Your task to perform on an android device: Show me productivity apps on the Play Store Image 0: 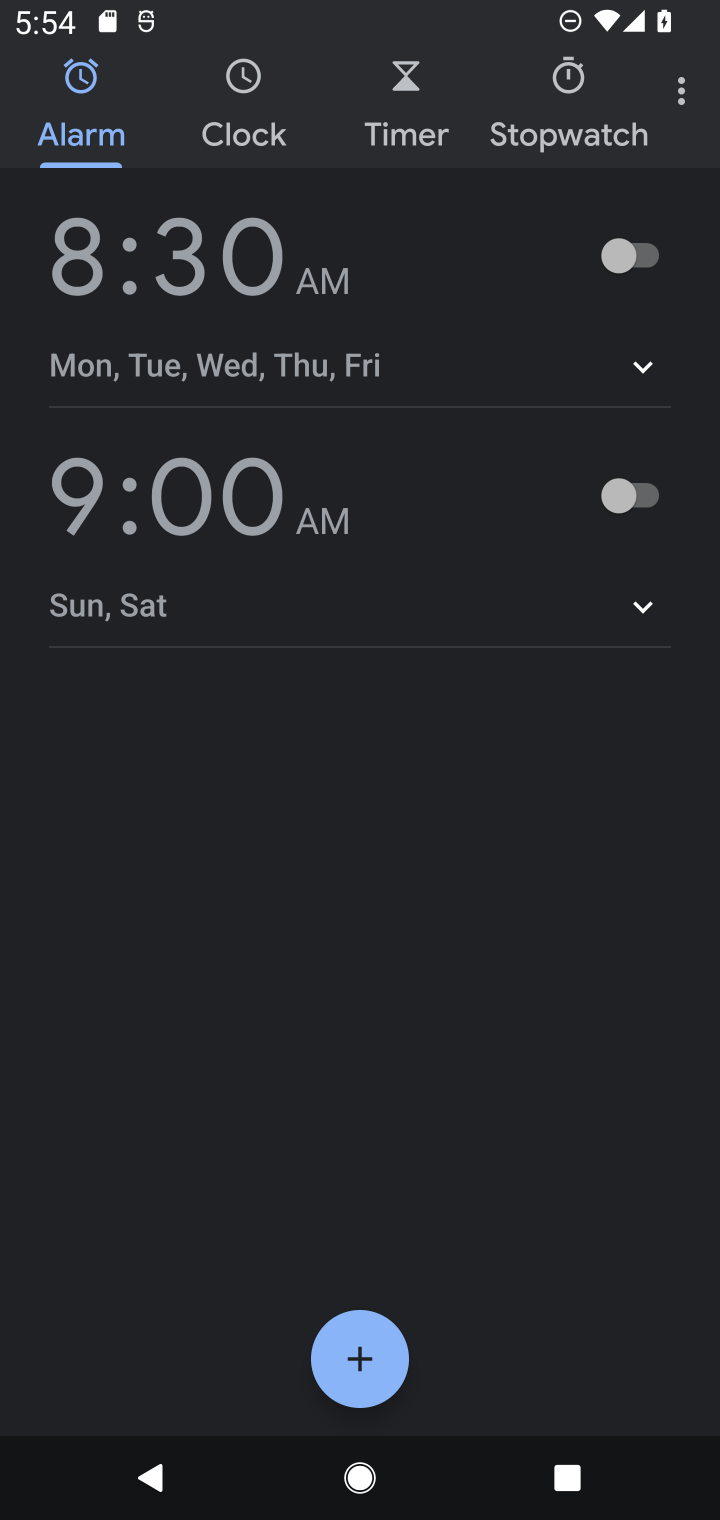
Step 0: press home button
Your task to perform on an android device: Show me productivity apps on the Play Store Image 1: 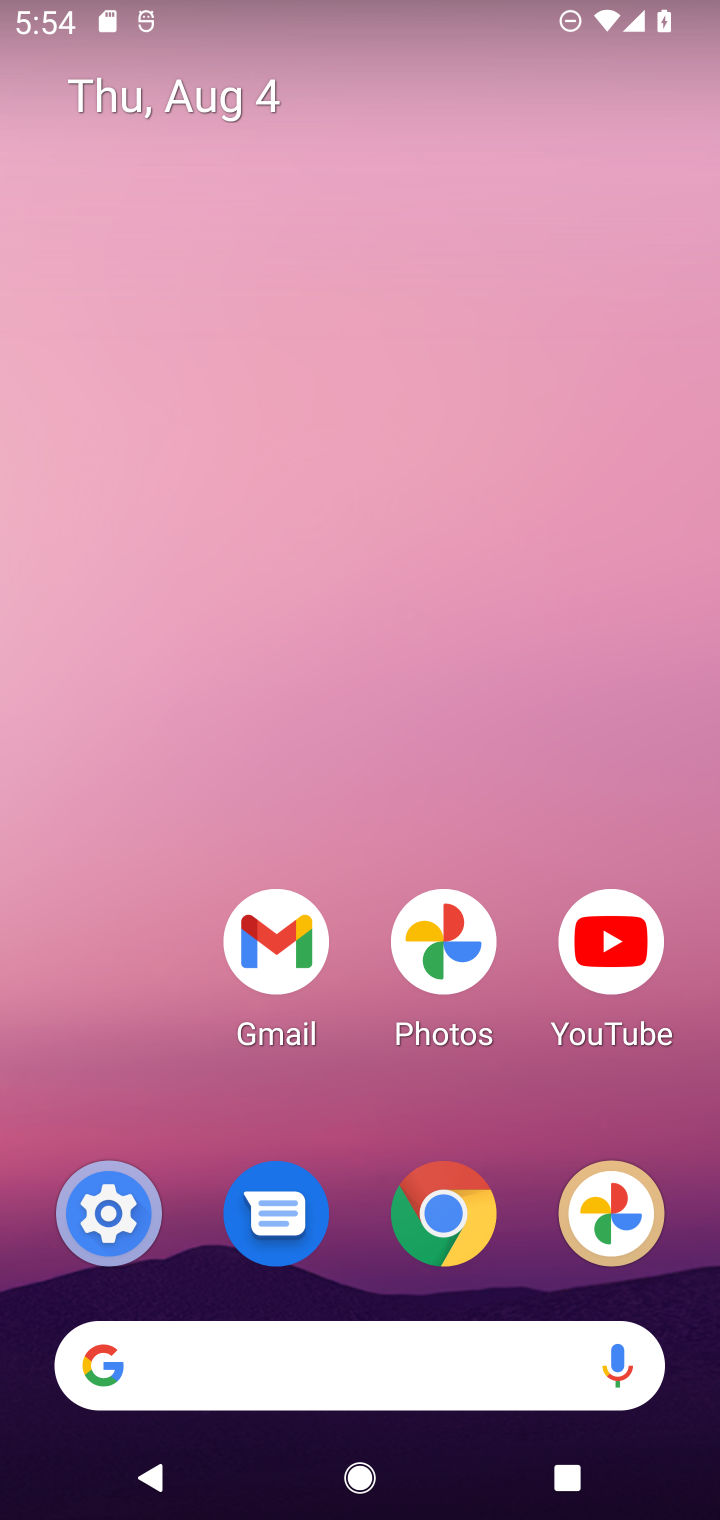
Step 1: drag from (178, 1126) to (204, 436)
Your task to perform on an android device: Show me productivity apps on the Play Store Image 2: 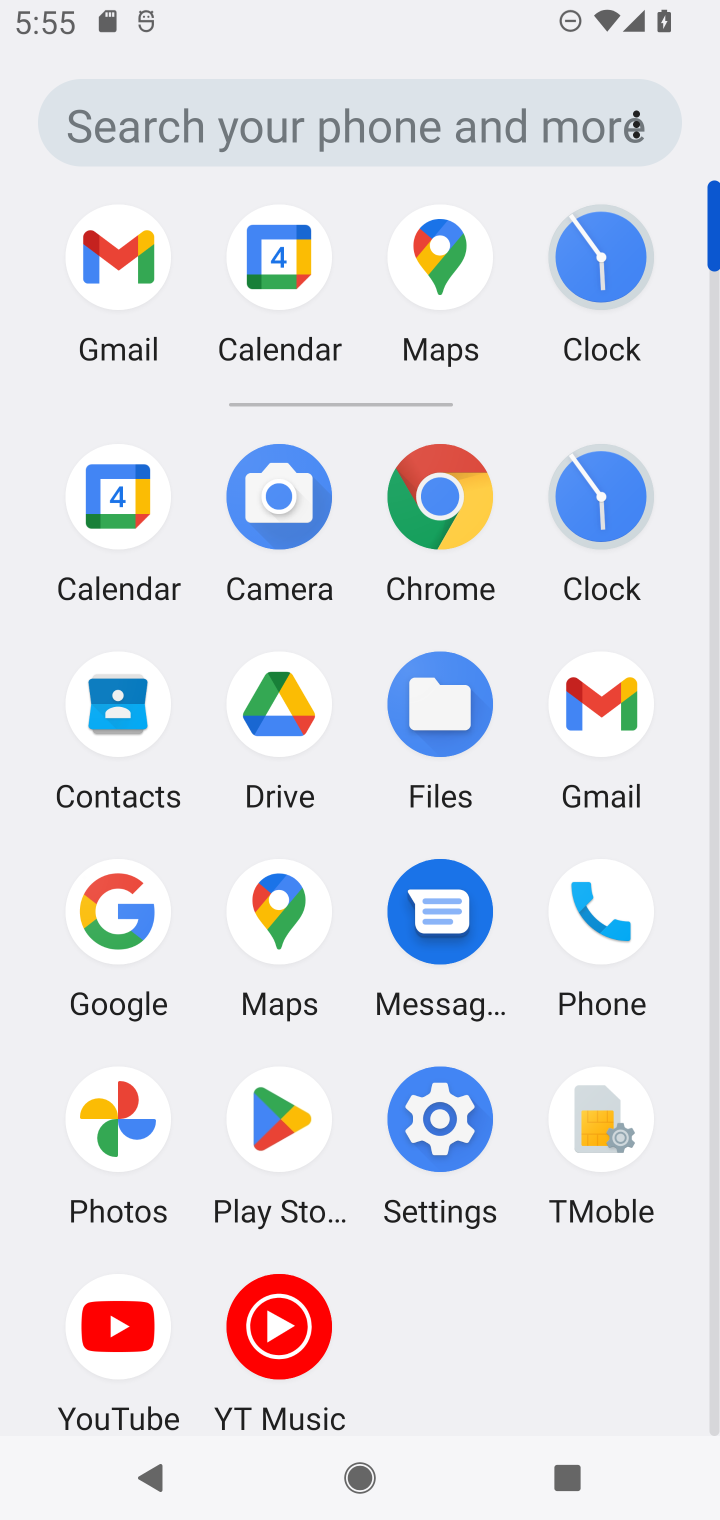
Step 2: click (282, 1125)
Your task to perform on an android device: Show me productivity apps on the Play Store Image 3: 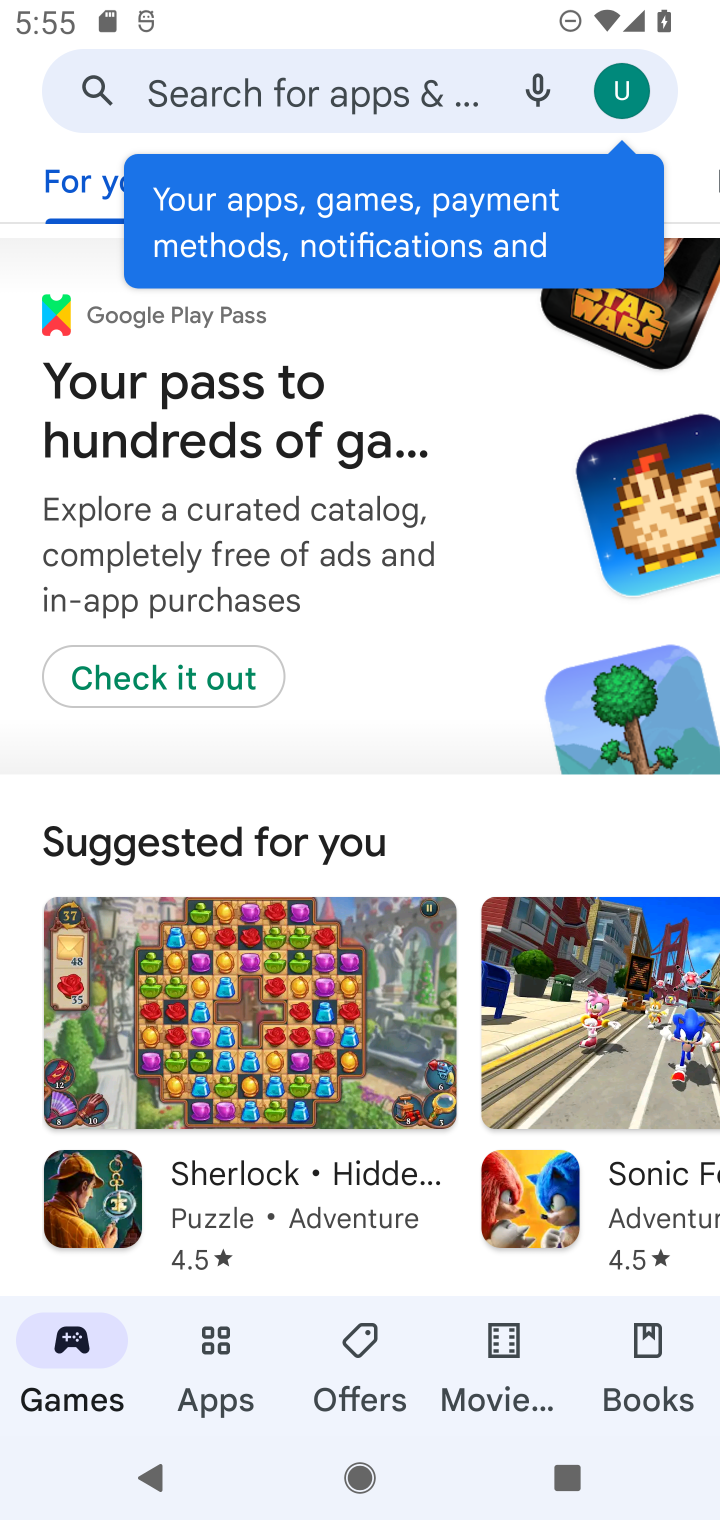
Step 3: click (205, 1370)
Your task to perform on an android device: Show me productivity apps on the Play Store Image 4: 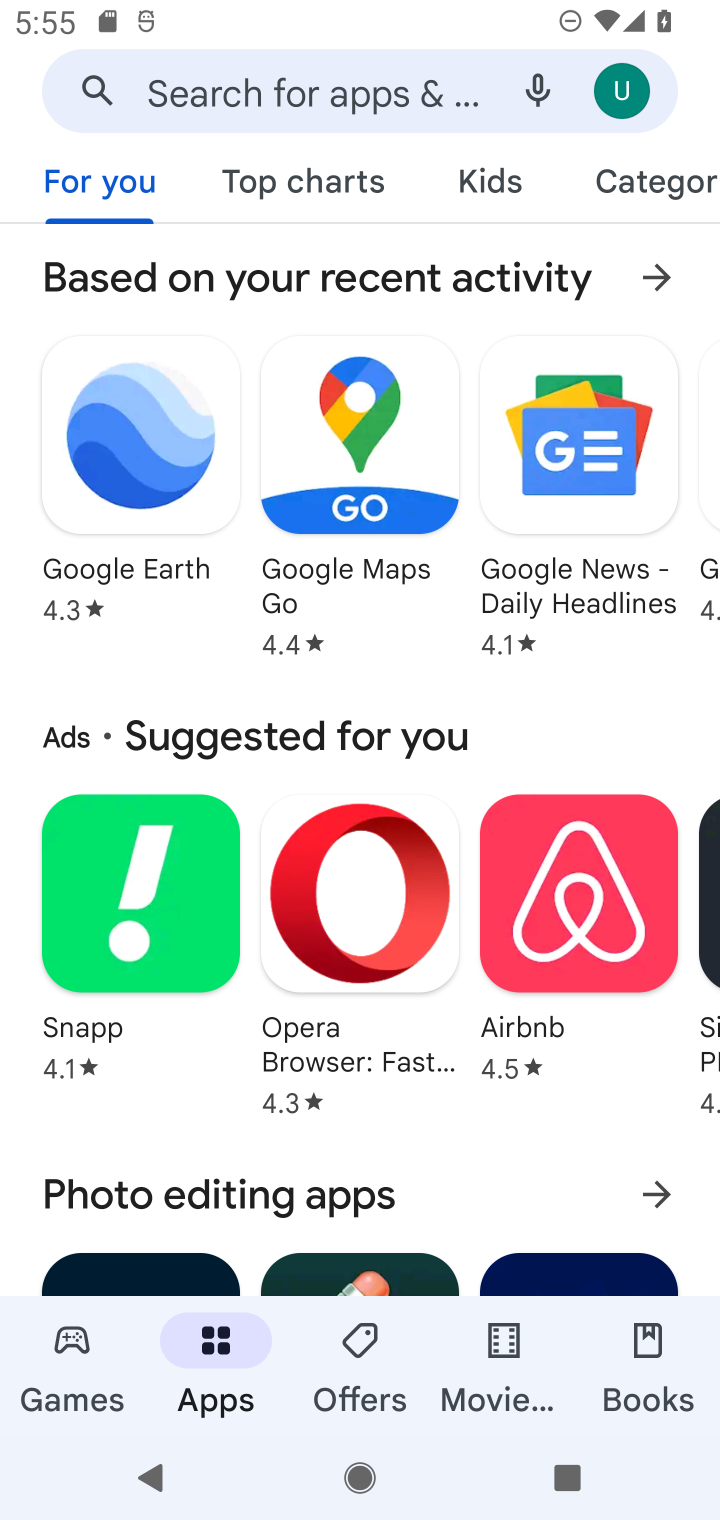
Step 4: task complete